Your task to perform on an android device: What's on my calendar tomorrow? Image 0: 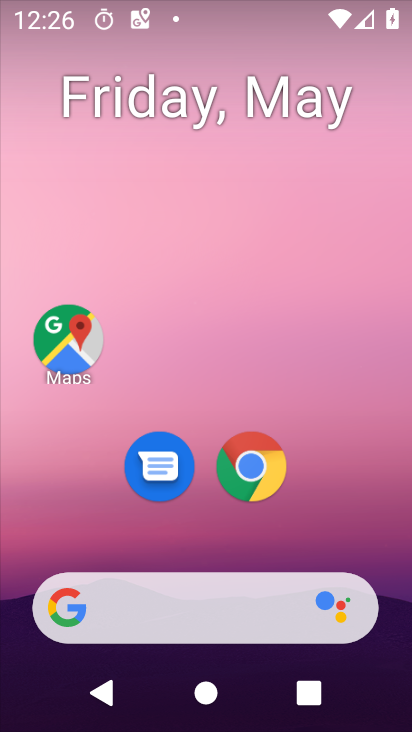
Step 0: drag from (389, 627) to (254, 22)
Your task to perform on an android device: What's on my calendar tomorrow? Image 1: 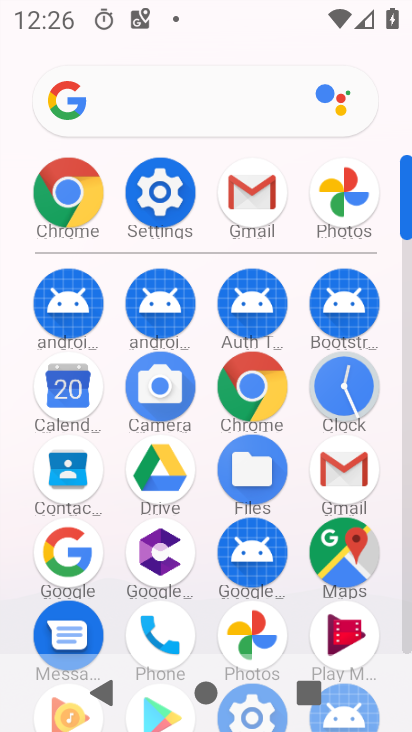
Step 1: click (51, 415)
Your task to perform on an android device: What's on my calendar tomorrow? Image 2: 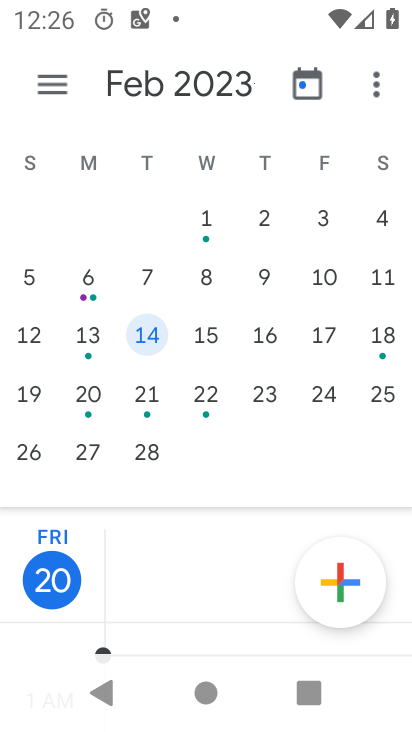
Step 2: task complete